Your task to perform on an android device: turn notification dots on Image 0: 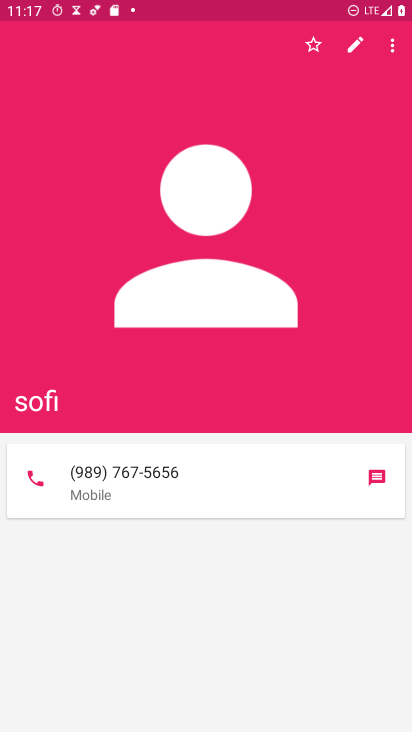
Step 0: press home button
Your task to perform on an android device: turn notification dots on Image 1: 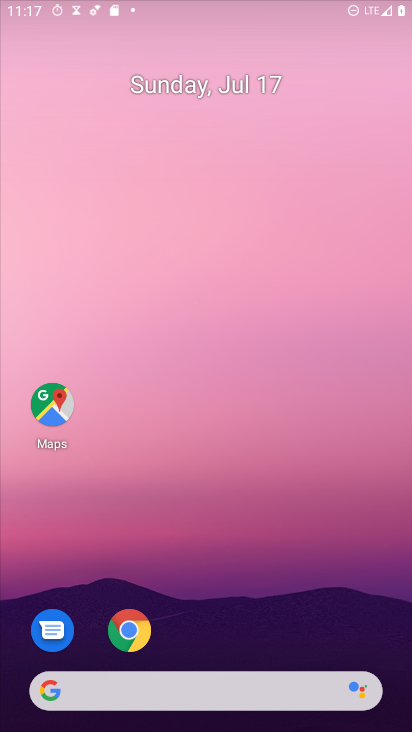
Step 1: drag from (155, 698) to (280, 9)
Your task to perform on an android device: turn notification dots on Image 2: 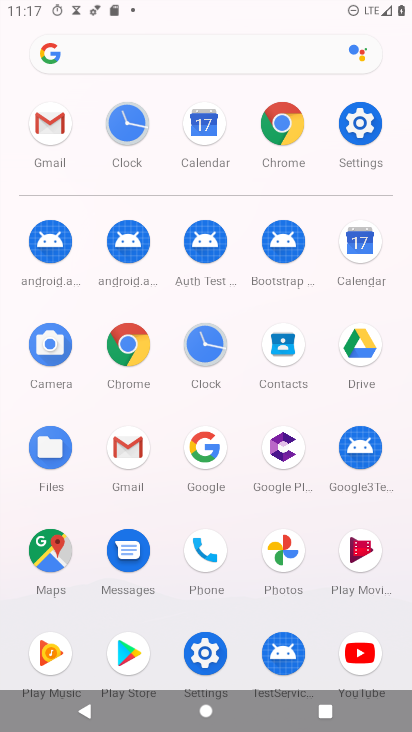
Step 2: click (357, 120)
Your task to perform on an android device: turn notification dots on Image 3: 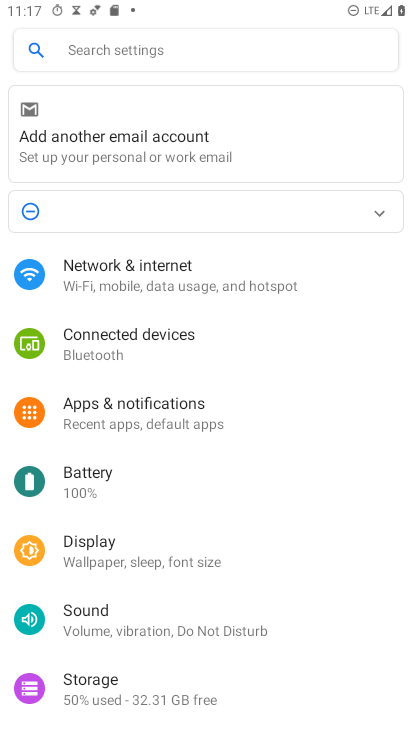
Step 3: click (144, 414)
Your task to perform on an android device: turn notification dots on Image 4: 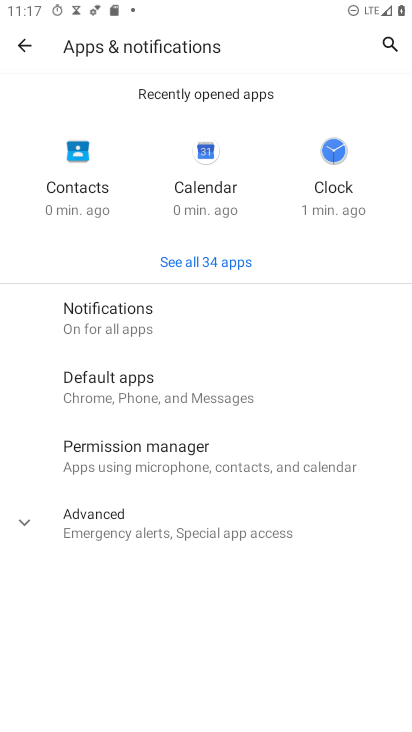
Step 4: click (143, 304)
Your task to perform on an android device: turn notification dots on Image 5: 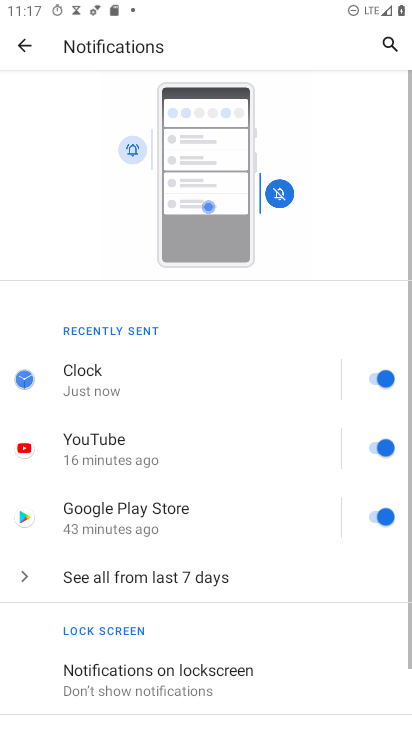
Step 5: drag from (174, 639) to (132, 63)
Your task to perform on an android device: turn notification dots on Image 6: 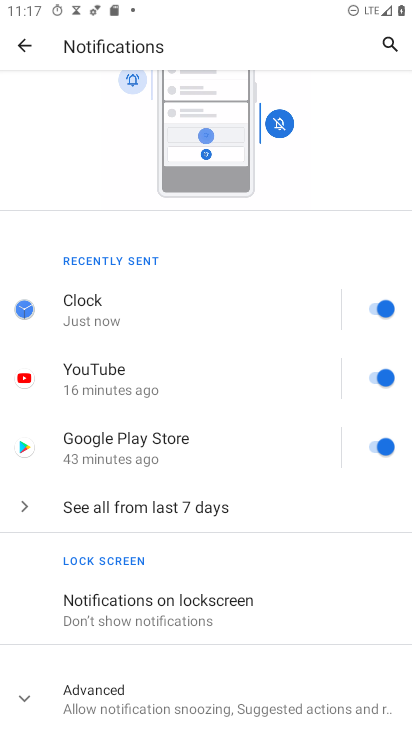
Step 6: click (100, 697)
Your task to perform on an android device: turn notification dots on Image 7: 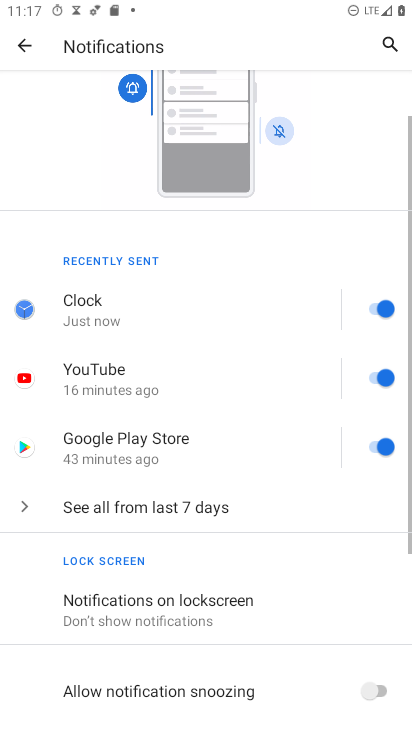
Step 7: task complete